Your task to perform on an android device: Go to calendar. Show me events next week Image 0: 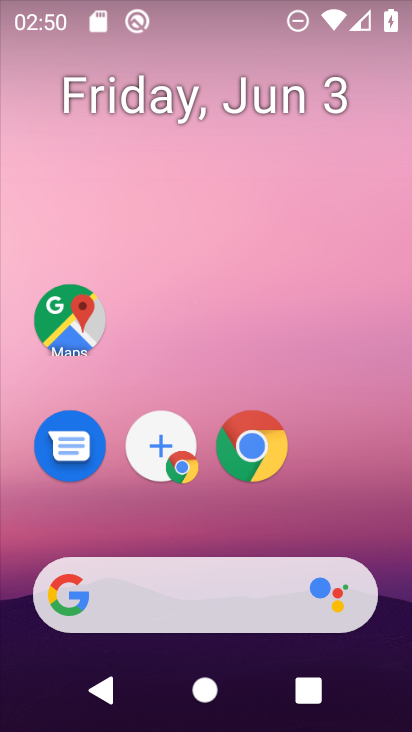
Step 0: drag from (240, 622) to (347, 6)
Your task to perform on an android device: Go to calendar. Show me events next week Image 1: 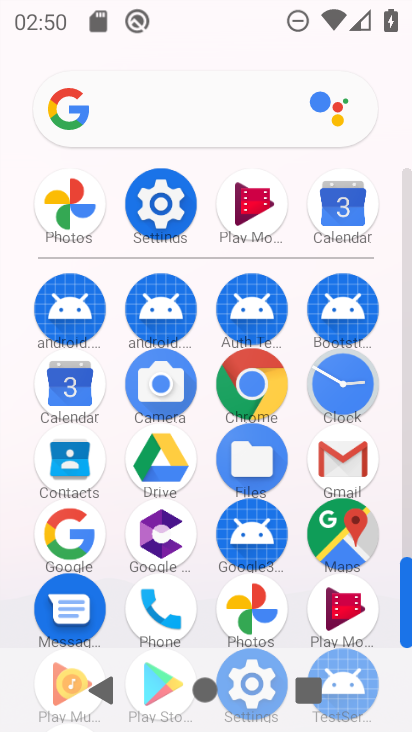
Step 1: click (59, 397)
Your task to perform on an android device: Go to calendar. Show me events next week Image 2: 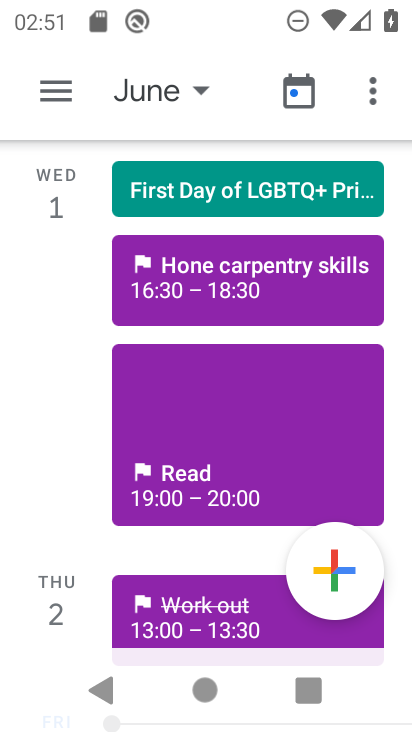
Step 2: task complete